Your task to perform on an android device: open wifi settings Image 0: 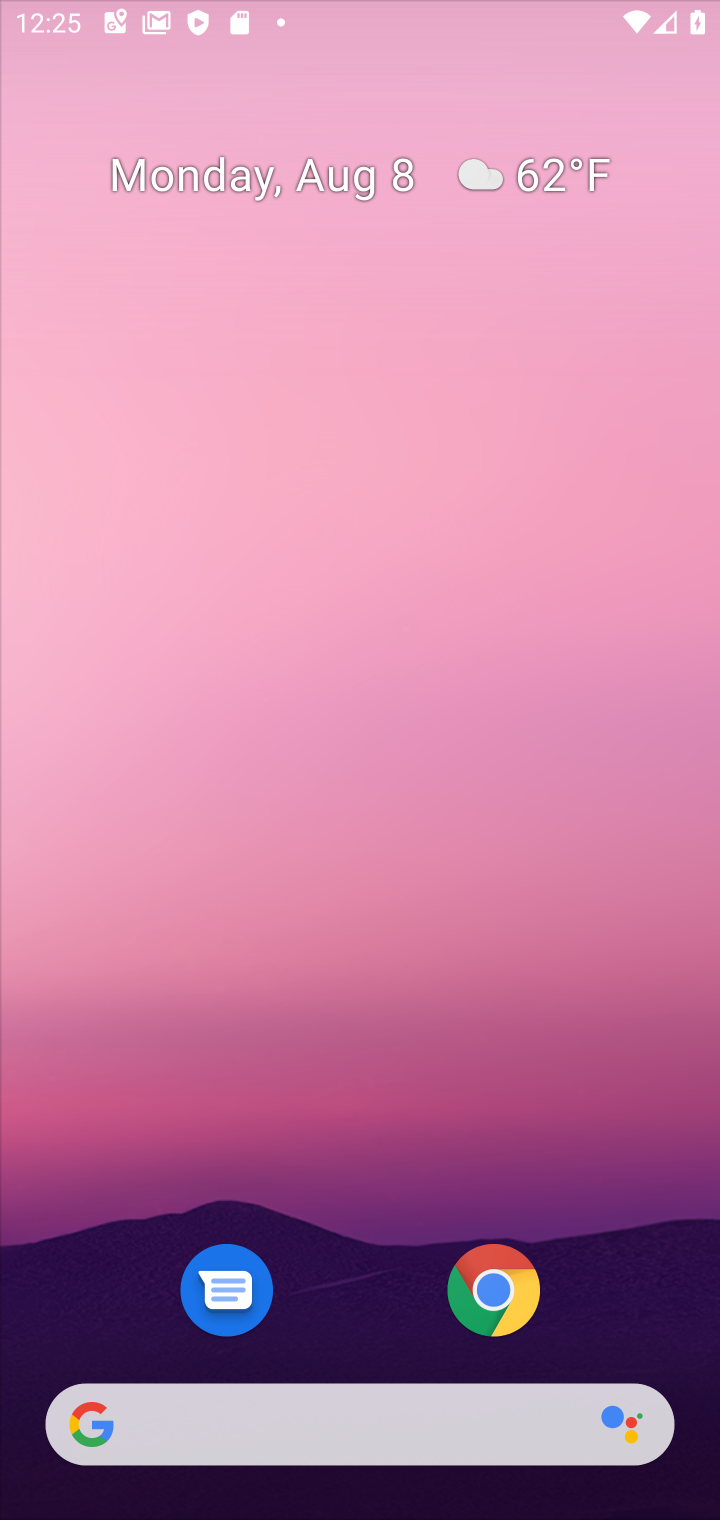
Step 0: press home button
Your task to perform on an android device: open wifi settings Image 1: 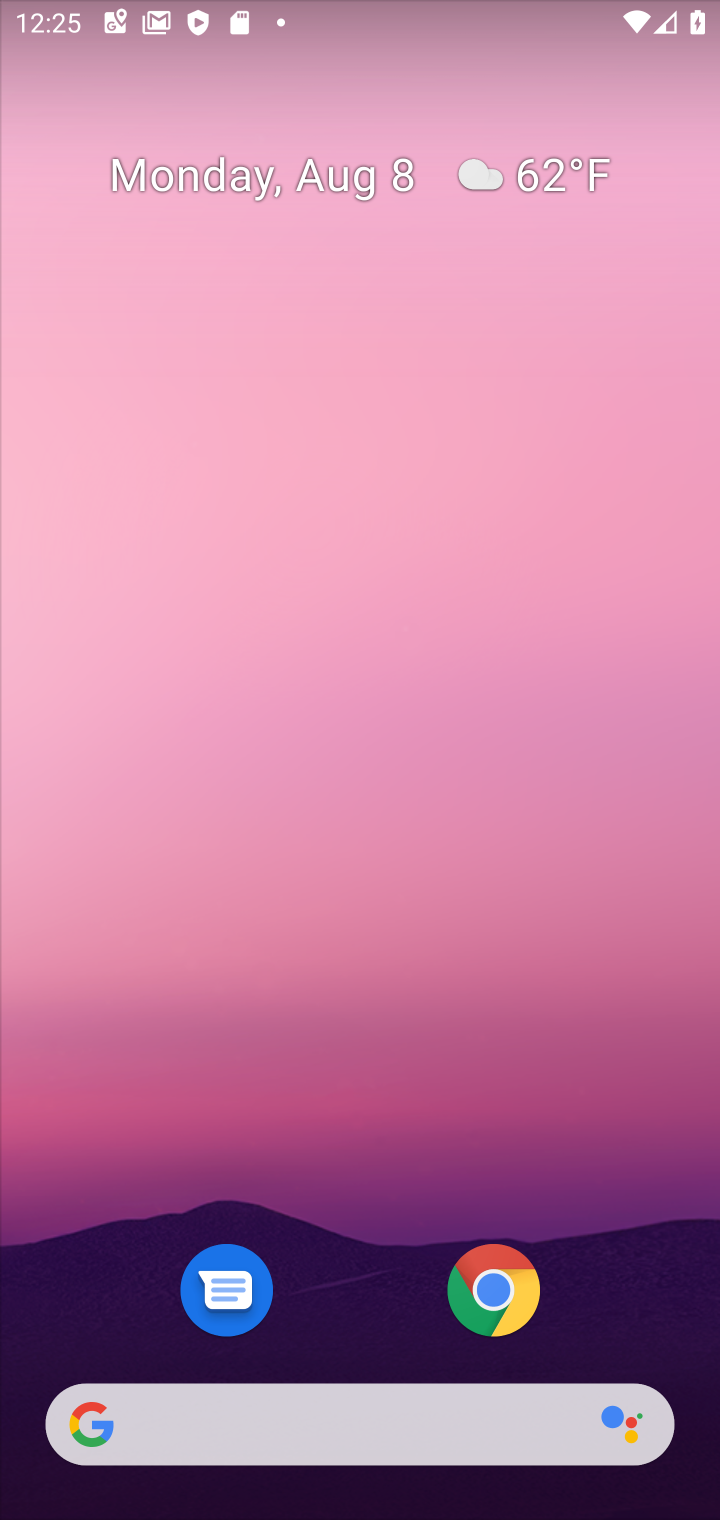
Step 1: click (375, 380)
Your task to perform on an android device: open wifi settings Image 2: 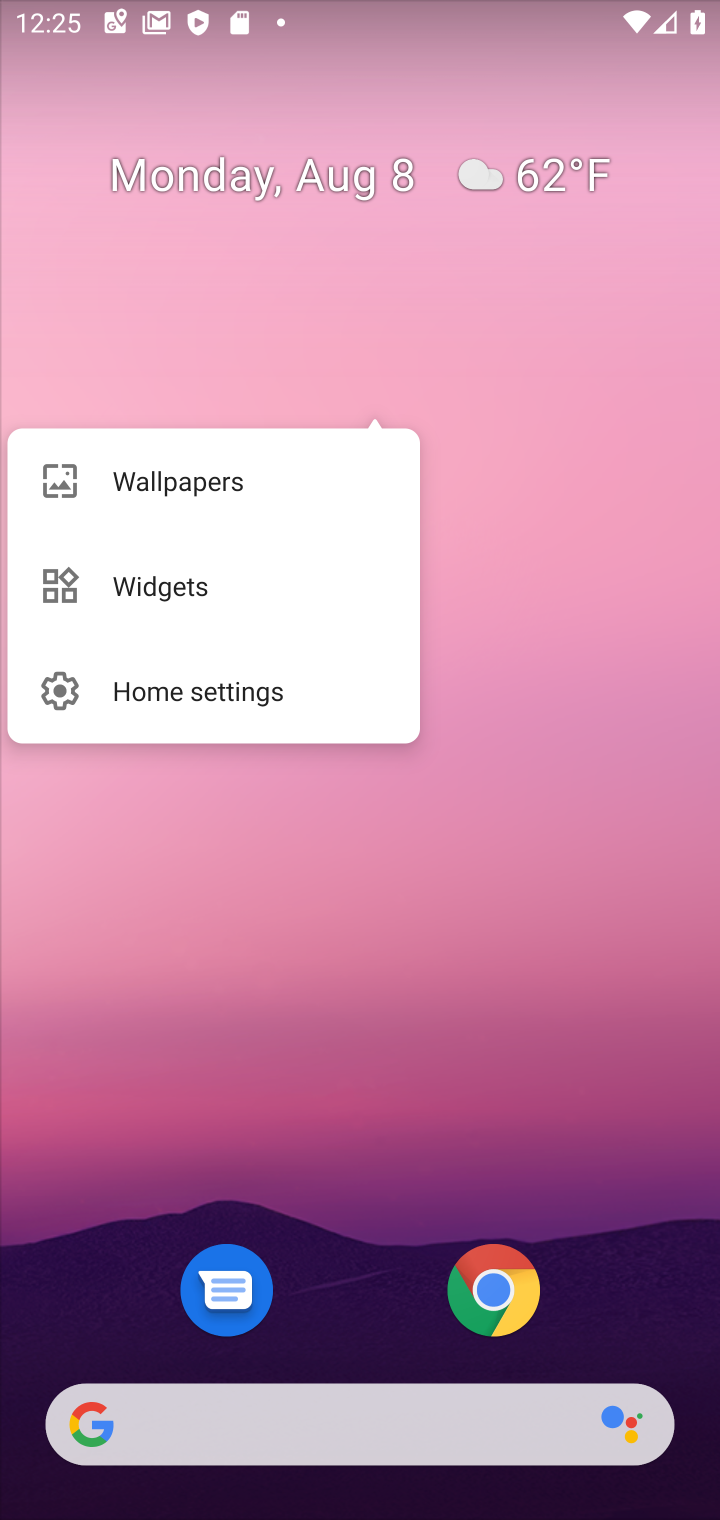
Step 2: click (318, 1194)
Your task to perform on an android device: open wifi settings Image 3: 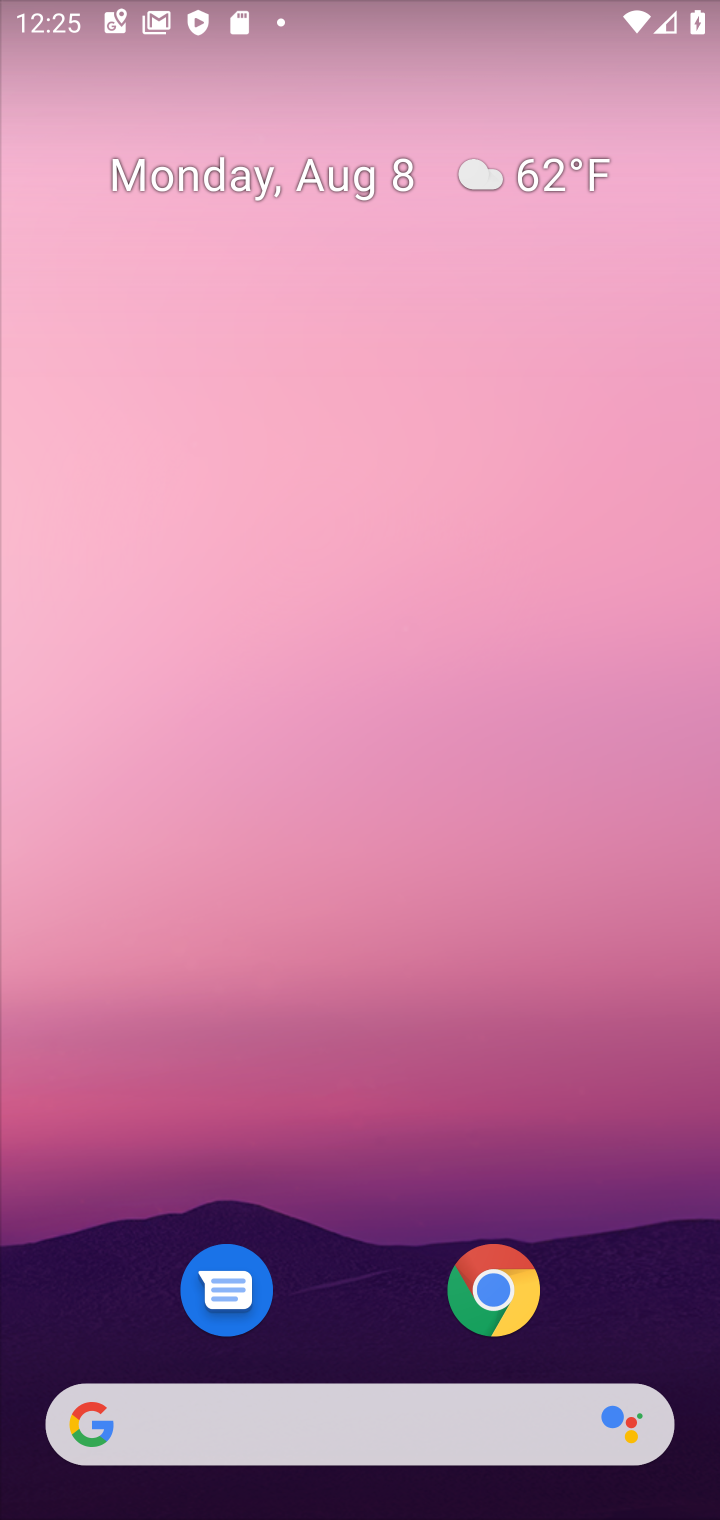
Step 3: drag from (353, 1258) to (450, 26)
Your task to perform on an android device: open wifi settings Image 4: 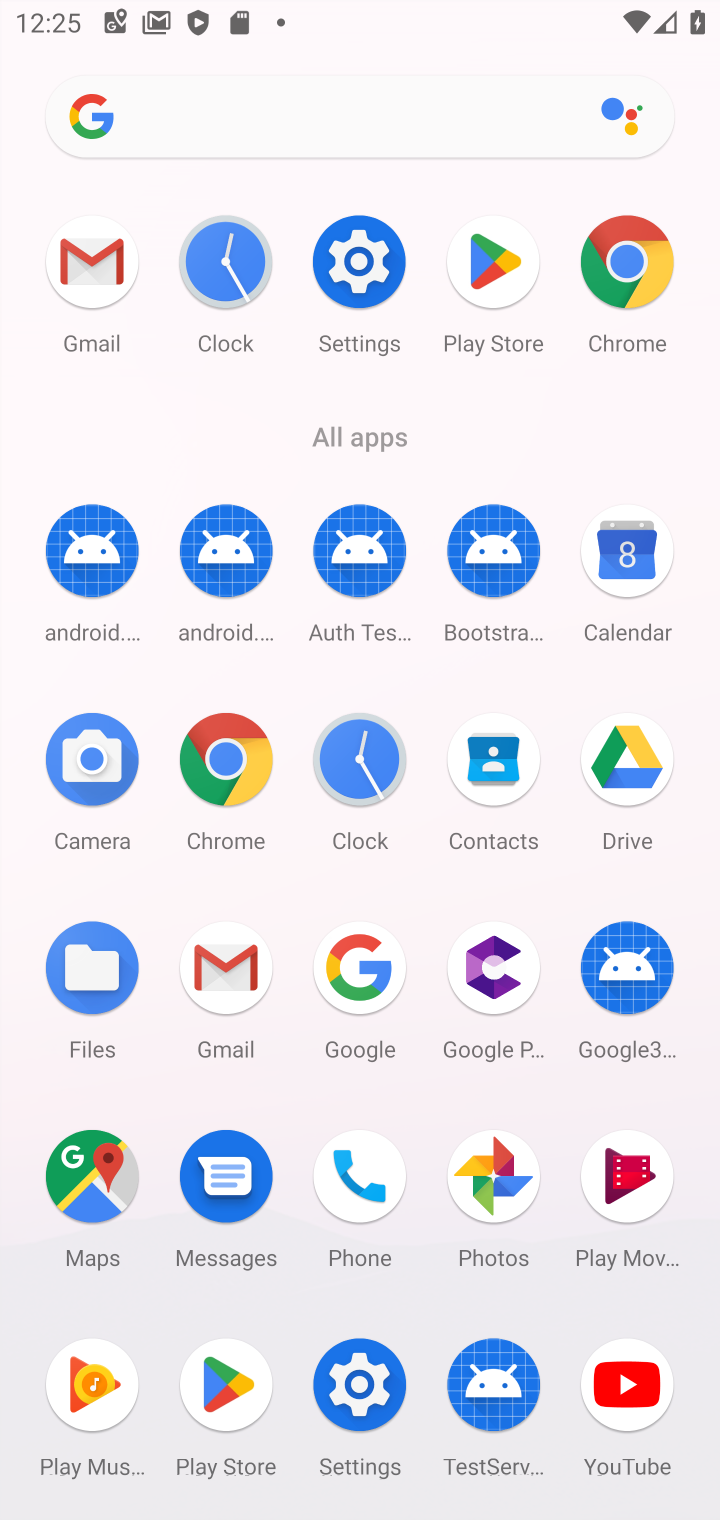
Step 4: click (361, 263)
Your task to perform on an android device: open wifi settings Image 5: 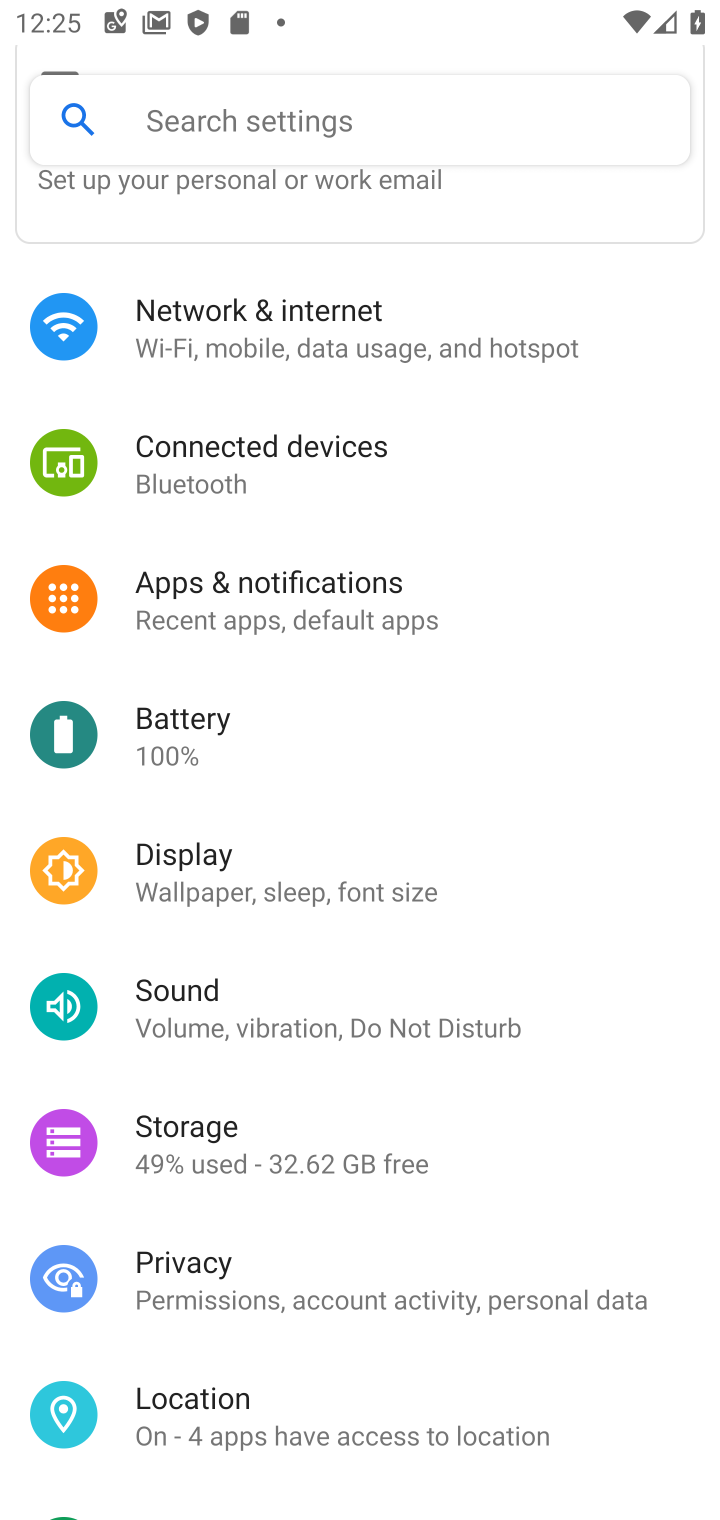
Step 5: click (324, 330)
Your task to perform on an android device: open wifi settings Image 6: 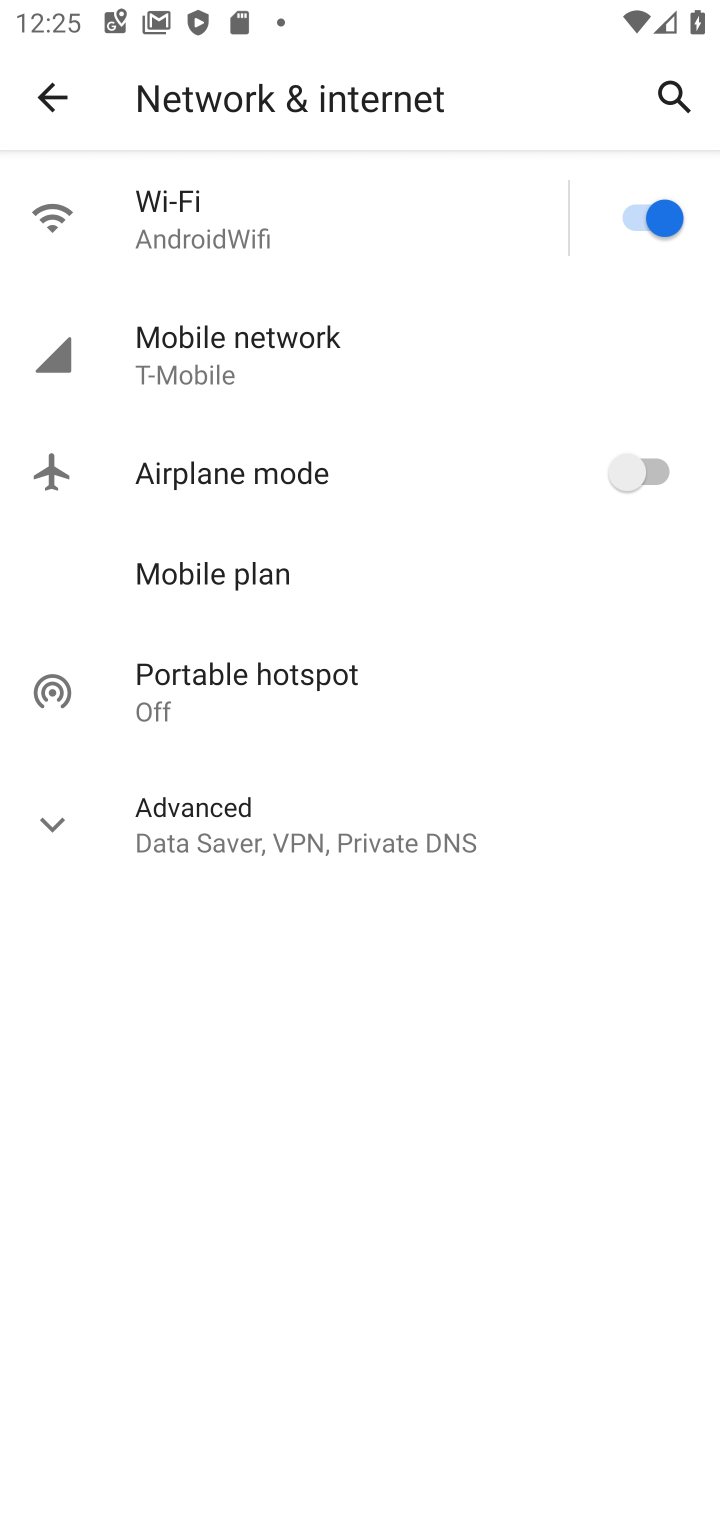
Step 6: click (224, 216)
Your task to perform on an android device: open wifi settings Image 7: 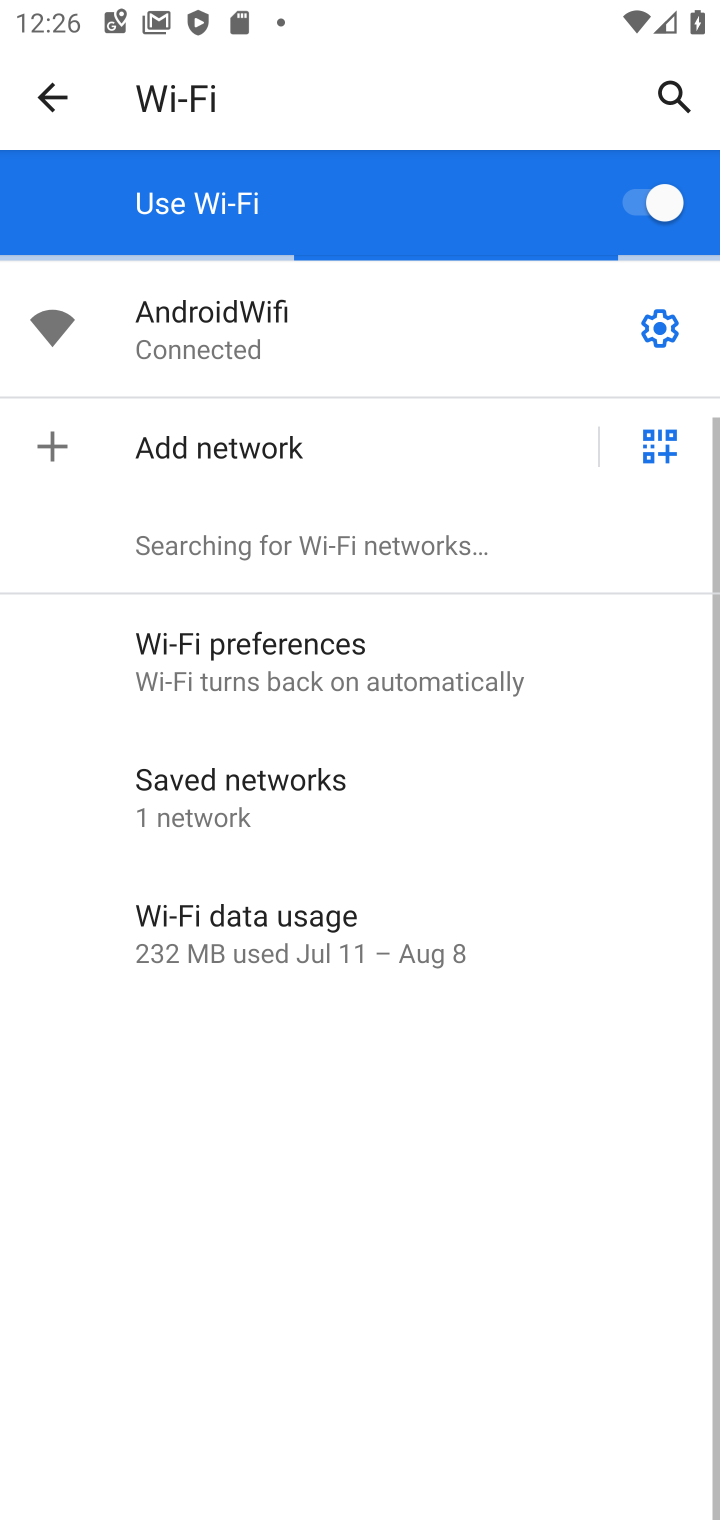
Step 7: task complete